Your task to perform on an android device: manage bookmarks in the chrome app Image 0: 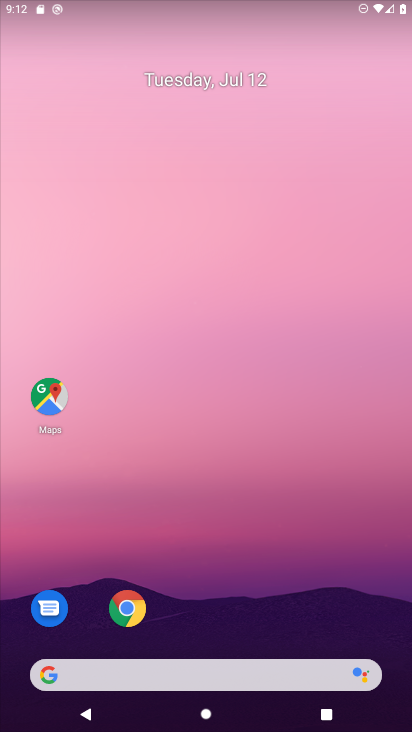
Step 0: click (133, 611)
Your task to perform on an android device: manage bookmarks in the chrome app Image 1: 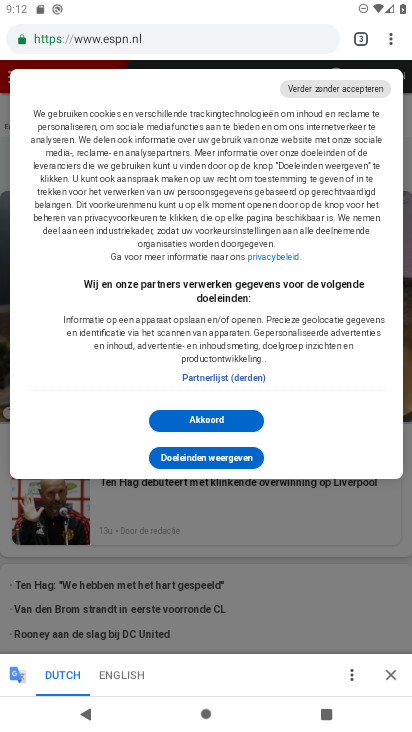
Step 1: click (391, 47)
Your task to perform on an android device: manage bookmarks in the chrome app Image 2: 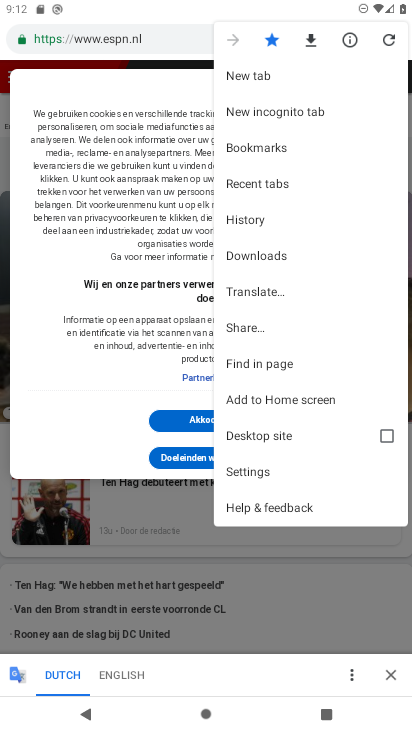
Step 2: click (282, 153)
Your task to perform on an android device: manage bookmarks in the chrome app Image 3: 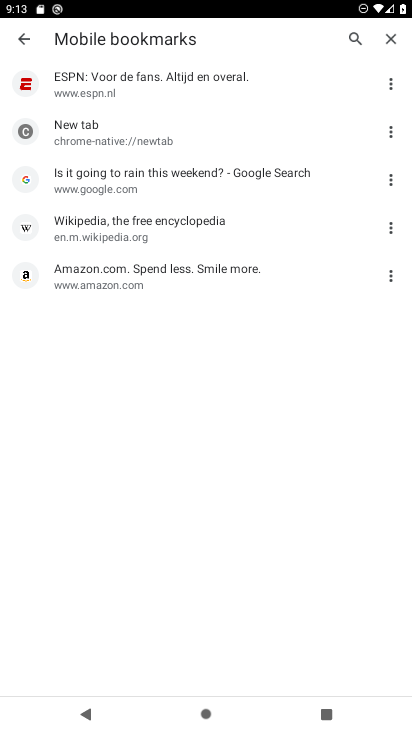
Step 3: click (394, 137)
Your task to perform on an android device: manage bookmarks in the chrome app Image 4: 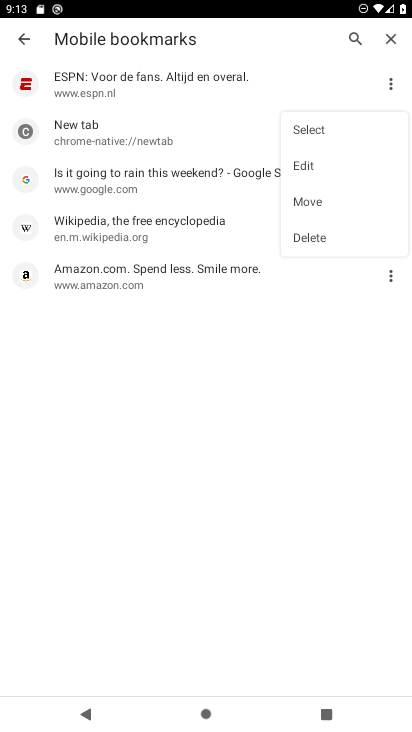
Step 4: click (319, 238)
Your task to perform on an android device: manage bookmarks in the chrome app Image 5: 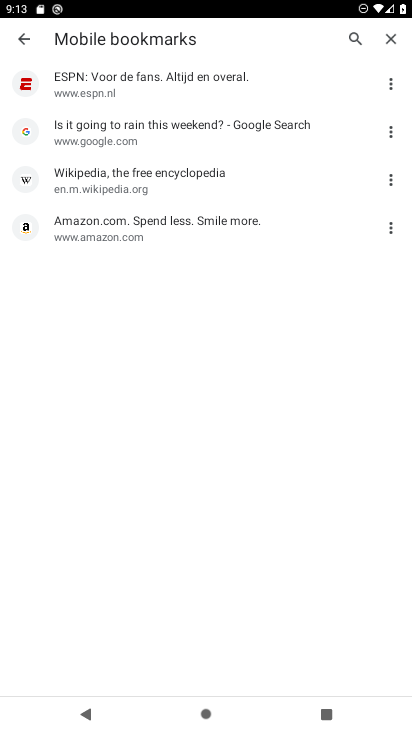
Step 5: task complete